Your task to perform on an android device: Go to ESPN.com Image 0: 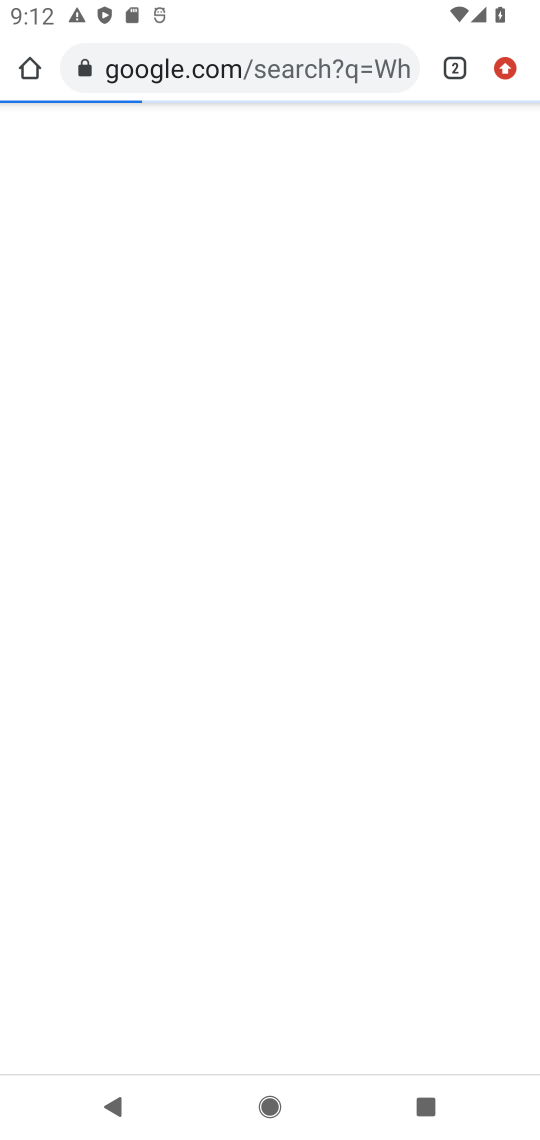
Step 0: press home button
Your task to perform on an android device: Go to ESPN.com Image 1: 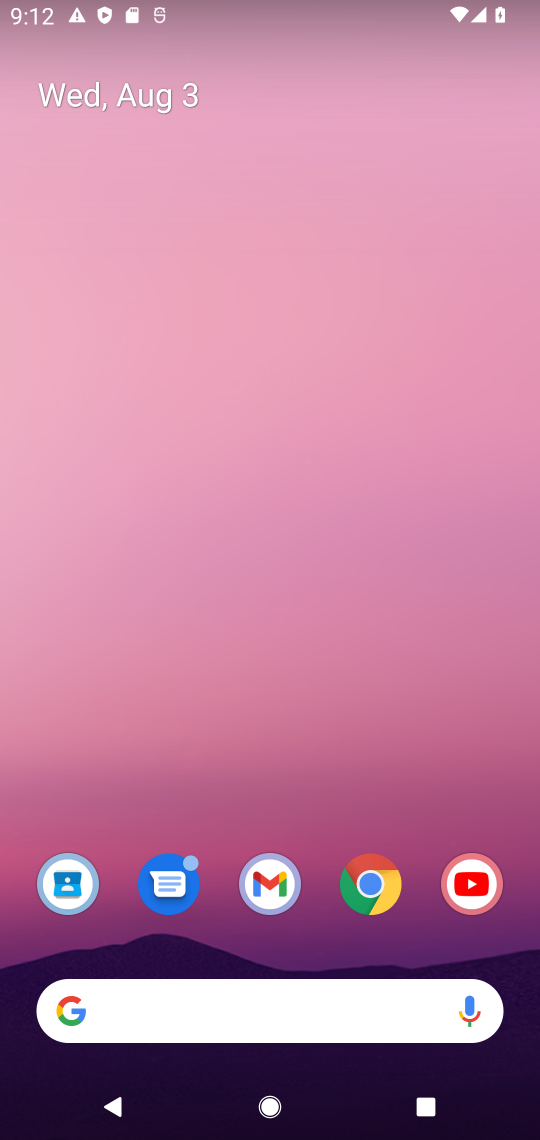
Step 1: click (360, 880)
Your task to perform on an android device: Go to ESPN.com Image 2: 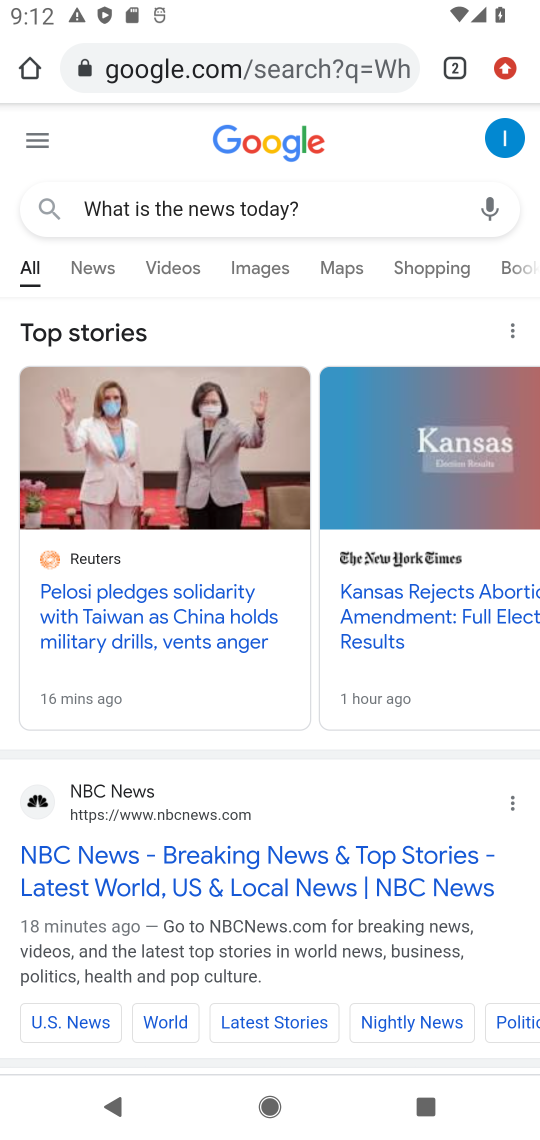
Step 2: click (266, 70)
Your task to perform on an android device: Go to ESPN.com Image 3: 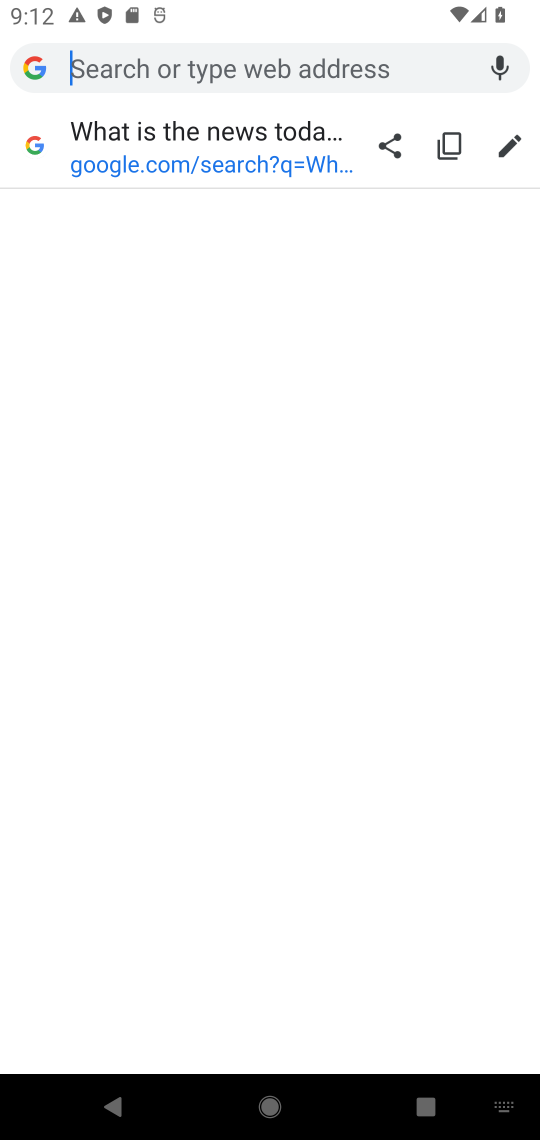
Step 3: type "ESPN.com"
Your task to perform on an android device: Go to ESPN.com Image 4: 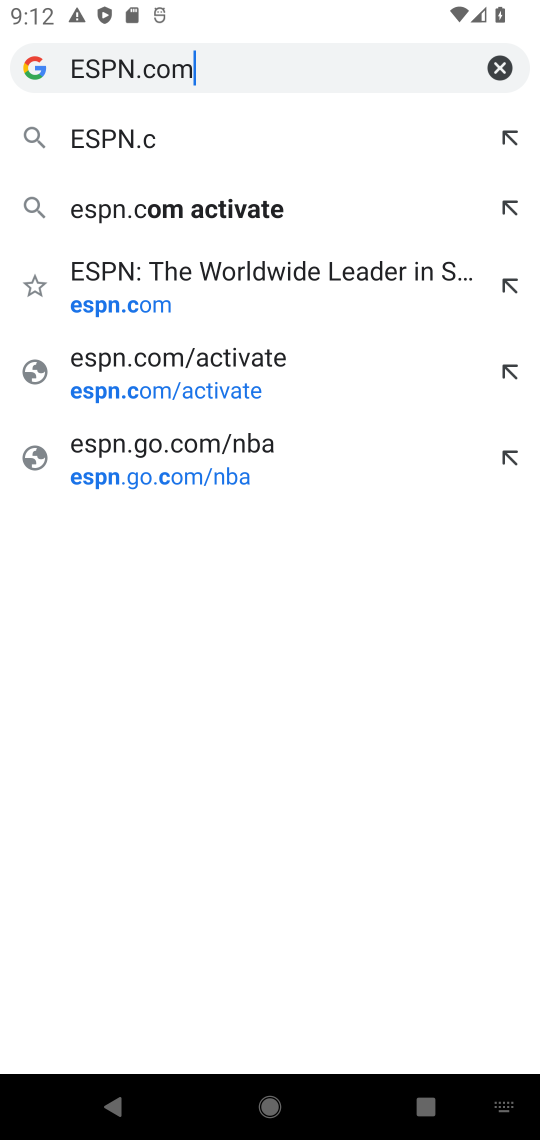
Step 4: type ""
Your task to perform on an android device: Go to ESPN.com Image 5: 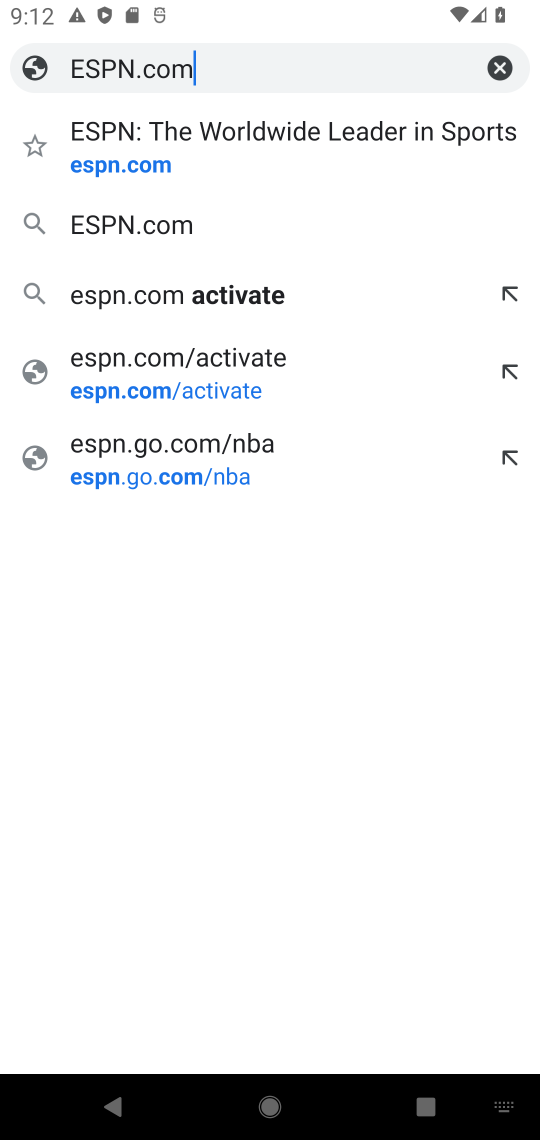
Step 5: click (155, 158)
Your task to perform on an android device: Go to ESPN.com Image 6: 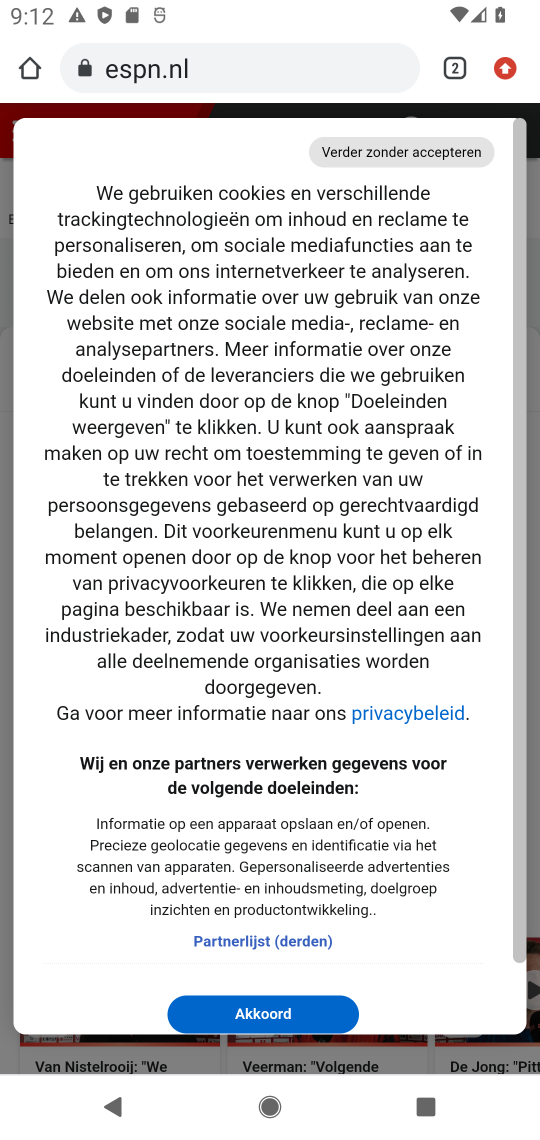
Step 6: task complete